Your task to perform on an android device: open chrome and create a bookmark for the current page Image 0: 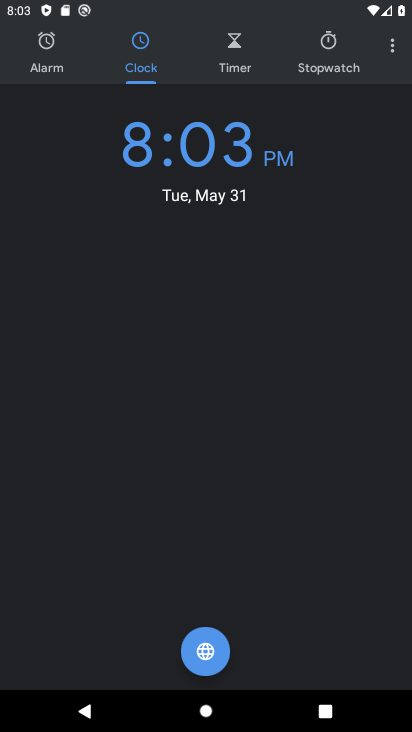
Step 0: press home button
Your task to perform on an android device: open chrome and create a bookmark for the current page Image 1: 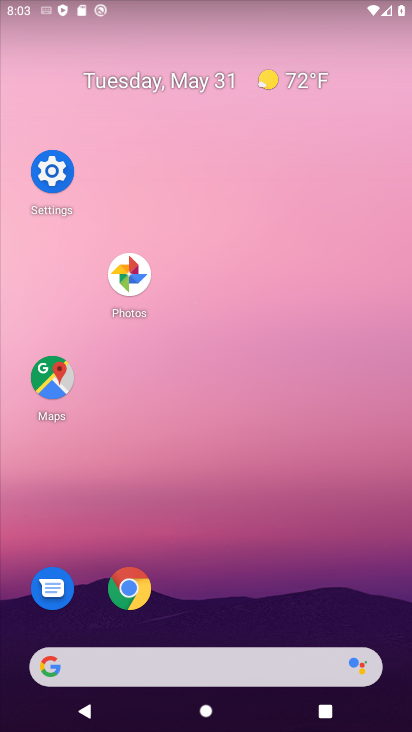
Step 1: click (131, 600)
Your task to perform on an android device: open chrome and create a bookmark for the current page Image 2: 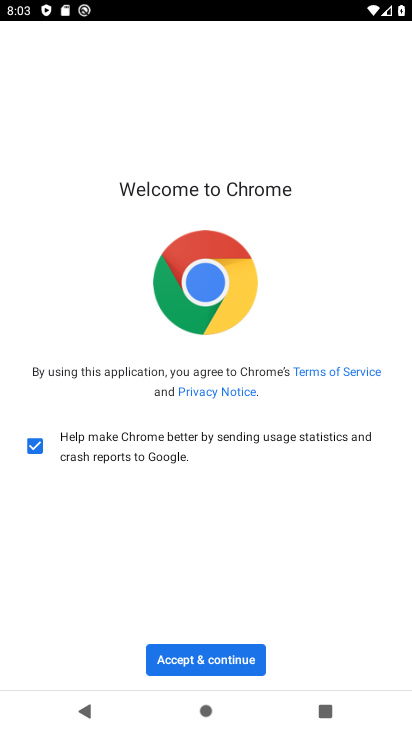
Step 2: click (244, 666)
Your task to perform on an android device: open chrome and create a bookmark for the current page Image 3: 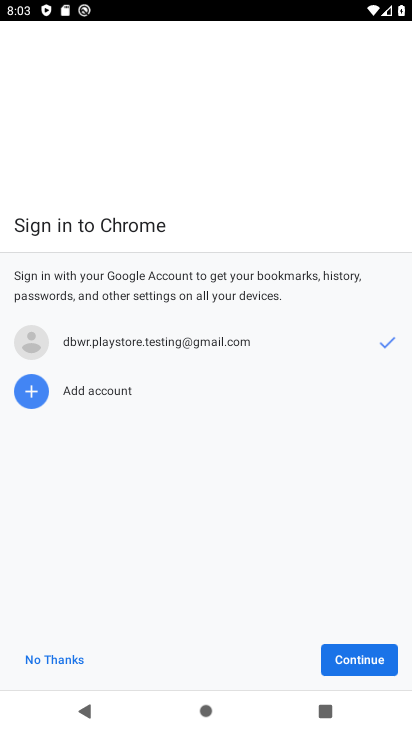
Step 3: click (369, 654)
Your task to perform on an android device: open chrome and create a bookmark for the current page Image 4: 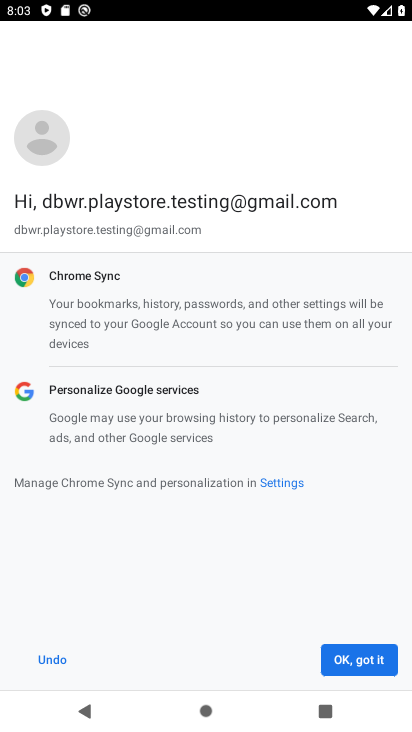
Step 4: click (369, 654)
Your task to perform on an android device: open chrome and create a bookmark for the current page Image 5: 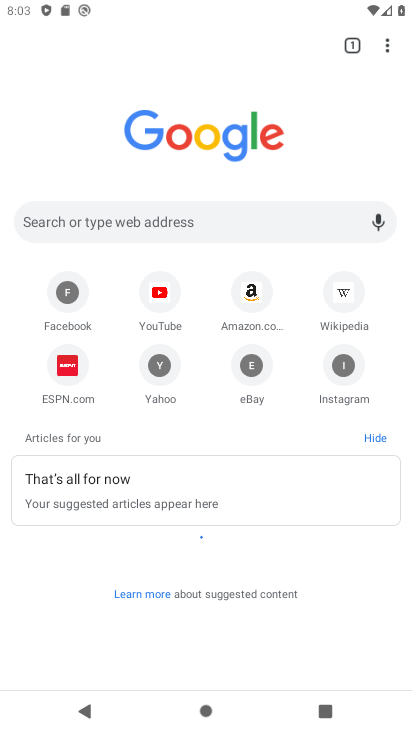
Step 5: click (379, 49)
Your task to perform on an android device: open chrome and create a bookmark for the current page Image 6: 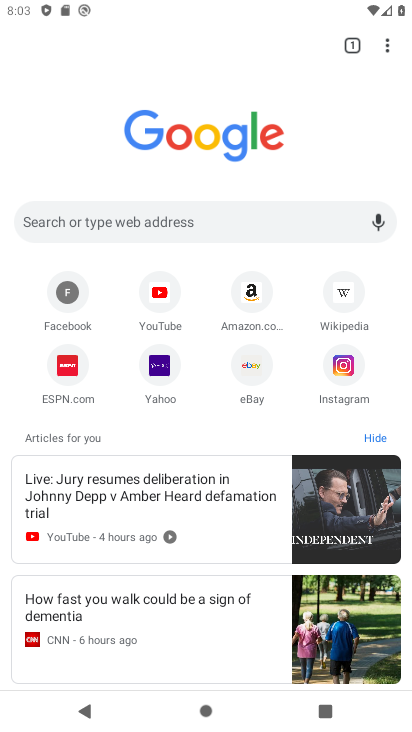
Step 6: click (385, 45)
Your task to perform on an android device: open chrome and create a bookmark for the current page Image 7: 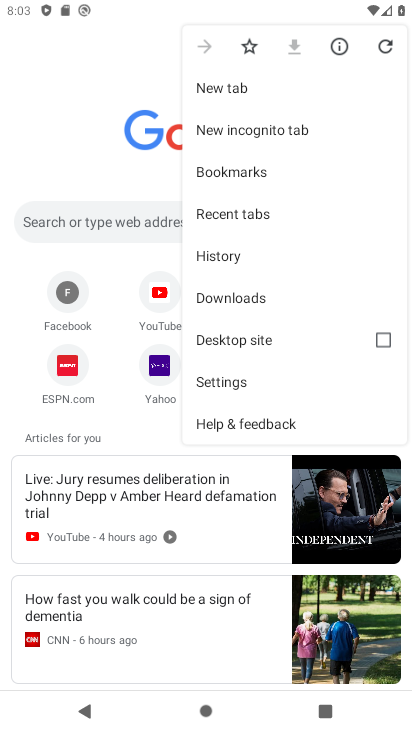
Step 7: click (247, 48)
Your task to perform on an android device: open chrome and create a bookmark for the current page Image 8: 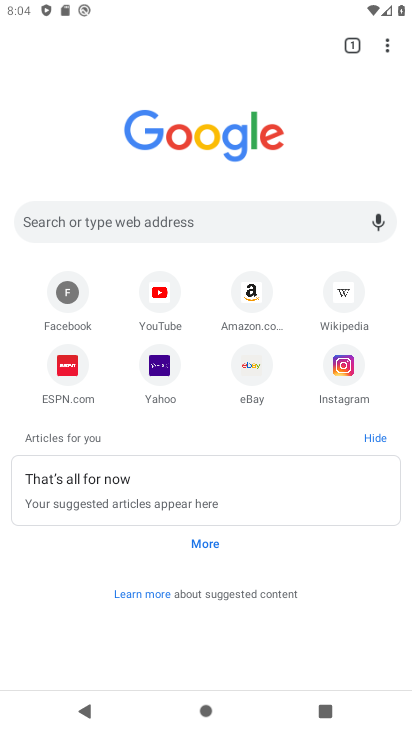
Step 8: task complete